Your task to perform on an android device: turn on notifications settings in the gmail app Image 0: 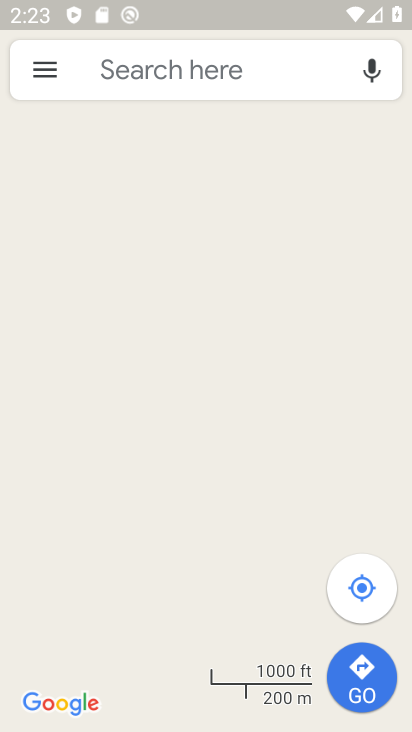
Step 0: press home button
Your task to perform on an android device: turn on notifications settings in the gmail app Image 1: 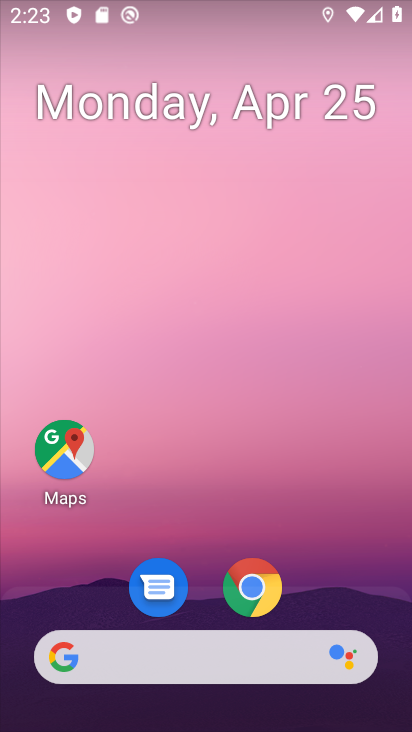
Step 1: drag from (211, 513) to (246, 107)
Your task to perform on an android device: turn on notifications settings in the gmail app Image 2: 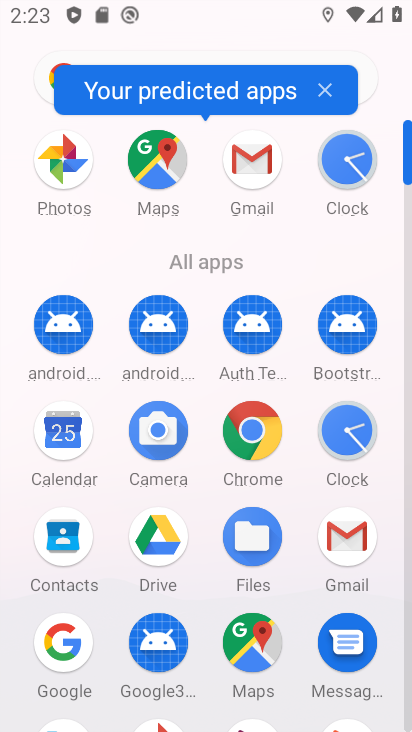
Step 2: click (347, 537)
Your task to perform on an android device: turn on notifications settings in the gmail app Image 3: 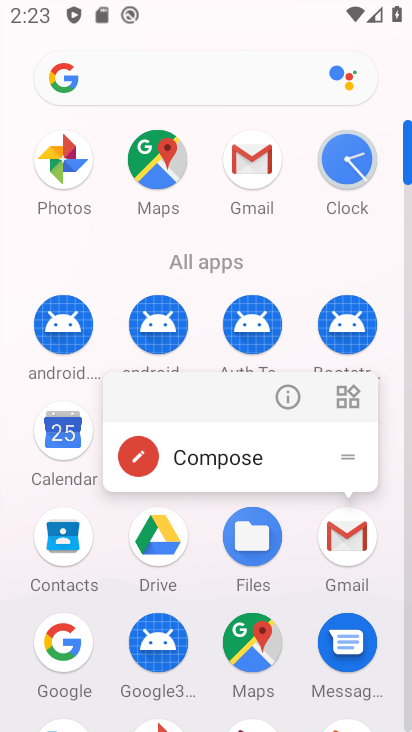
Step 3: click (288, 407)
Your task to perform on an android device: turn on notifications settings in the gmail app Image 4: 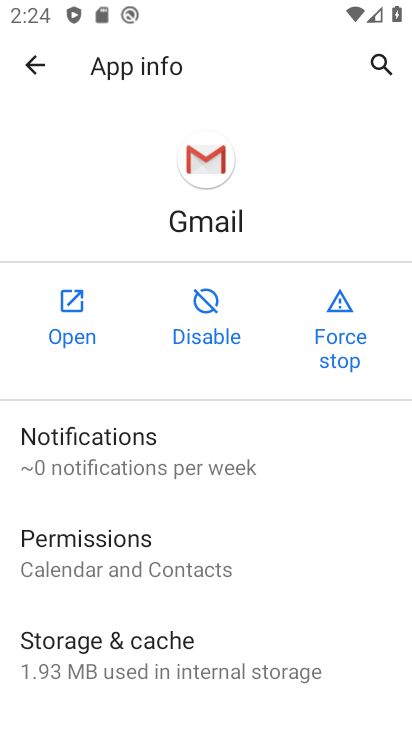
Step 4: click (70, 334)
Your task to perform on an android device: turn on notifications settings in the gmail app Image 5: 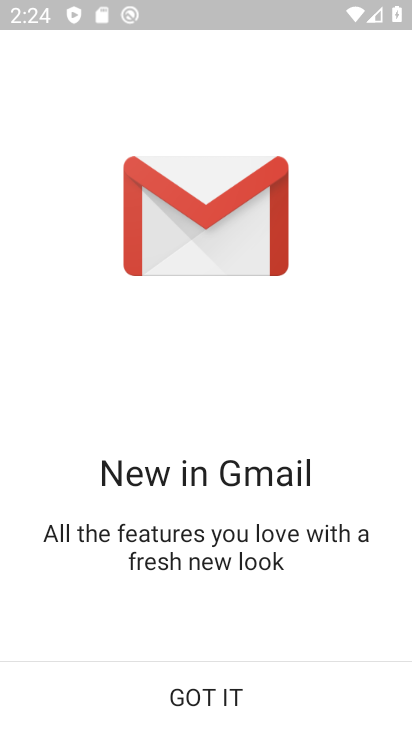
Step 5: click (221, 683)
Your task to perform on an android device: turn on notifications settings in the gmail app Image 6: 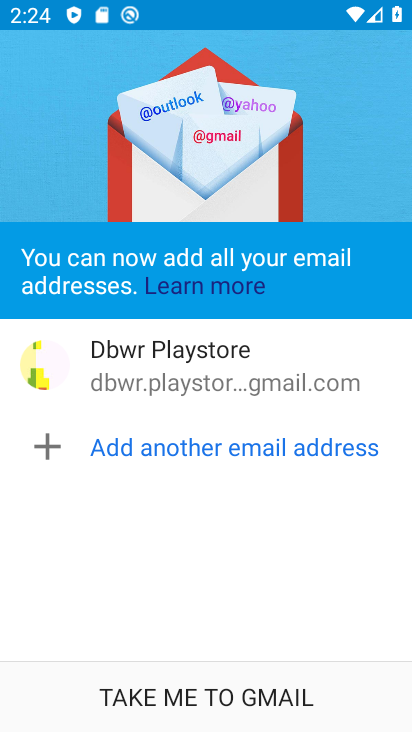
Step 6: click (221, 683)
Your task to perform on an android device: turn on notifications settings in the gmail app Image 7: 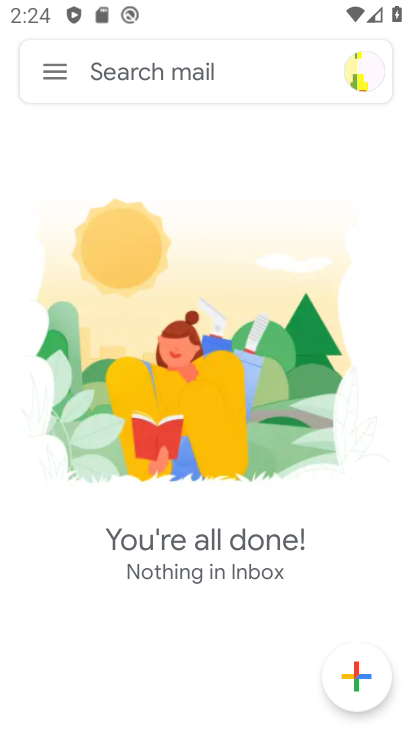
Step 7: click (53, 83)
Your task to perform on an android device: turn on notifications settings in the gmail app Image 8: 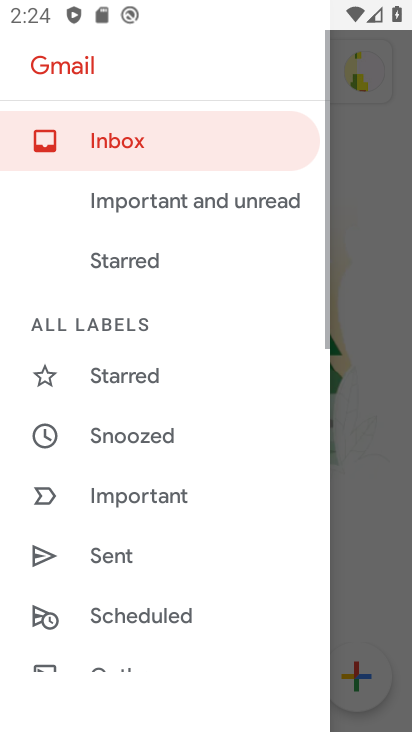
Step 8: drag from (141, 508) to (197, 159)
Your task to perform on an android device: turn on notifications settings in the gmail app Image 9: 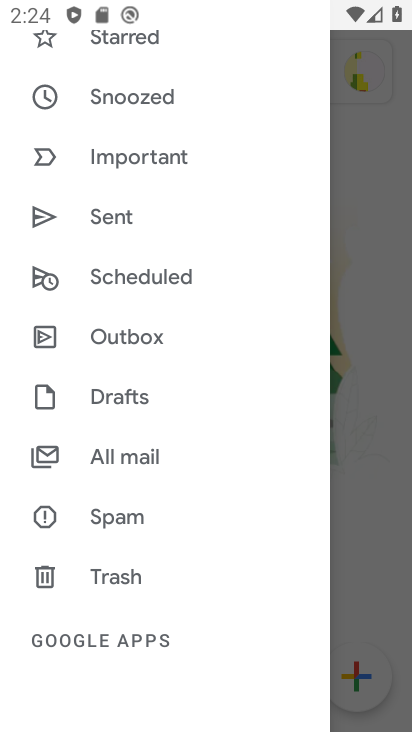
Step 9: drag from (138, 600) to (181, 252)
Your task to perform on an android device: turn on notifications settings in the gmail app Image 10: 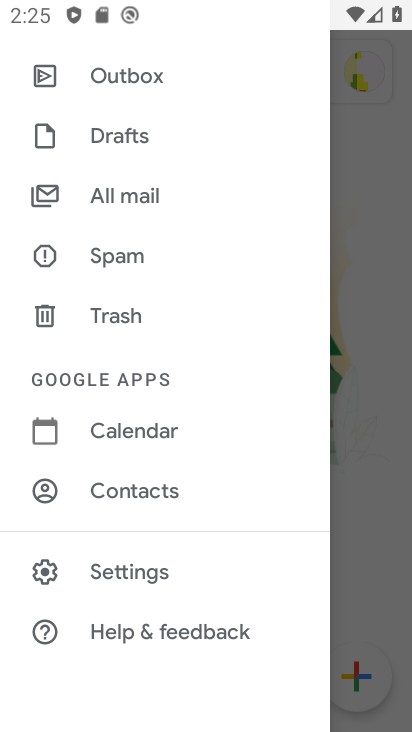
Step 10: click (126, 580)
Your task to perform on an android device: turn on notifications settings in the gmail app Image 11: 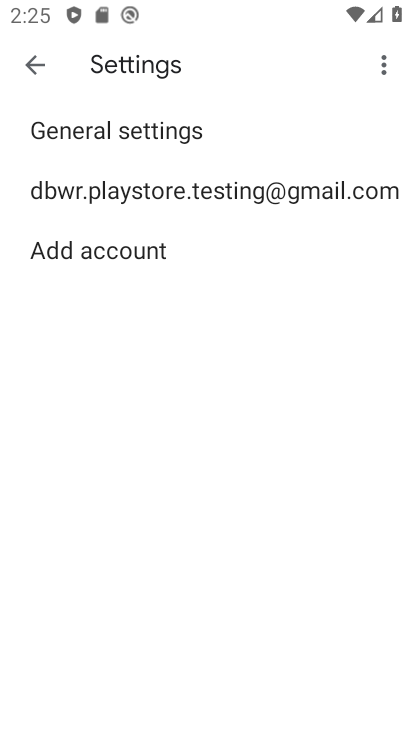
Step 11: click (300, 203)
Your task to perform on an android device: turn on notifications settings in the gmail app Image 12: 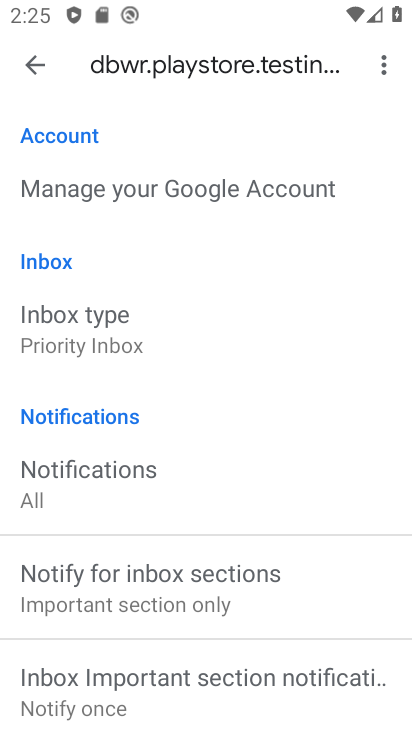
Step 12: drag from (220, 535) to (288, 322)
Your task to perform on an android device: turn on notifications settings in the gmail app Image 13: 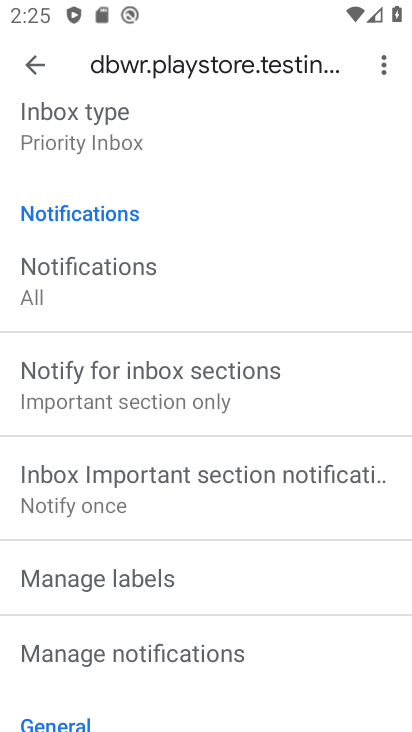
Step 13: click (152, 640)
Your task to perform on an android device: turn on notifications settings in the gmail app Image 14: 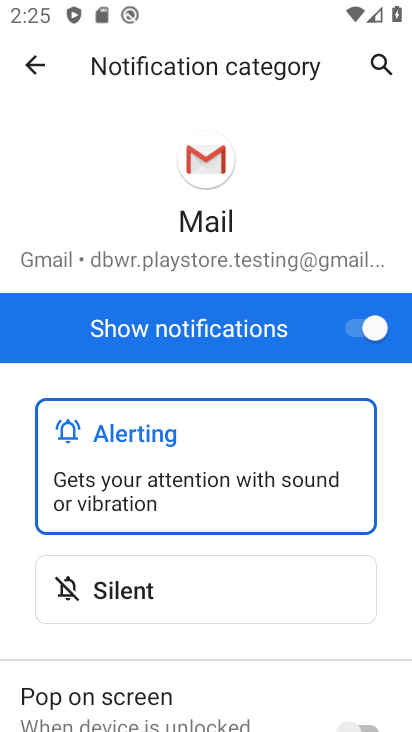
Step 14: click (376, 328)
Your task to perform on an android device: turn on notifications settings in the gmail app Image 15: 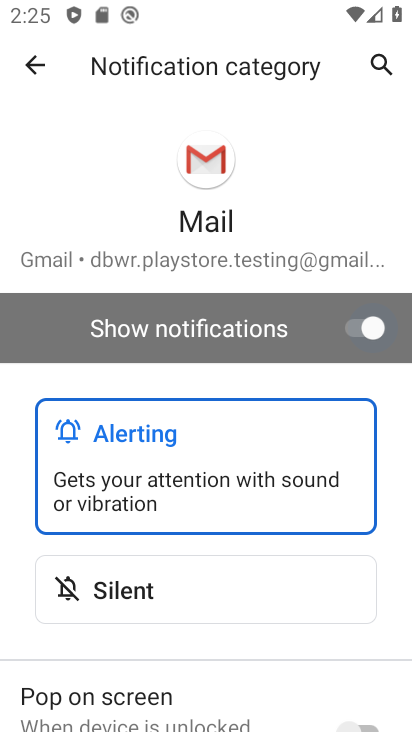
Step 15: click (376, 328)
Your task to perform on an android device: turn on notifications settings in the gmail app Image 16: 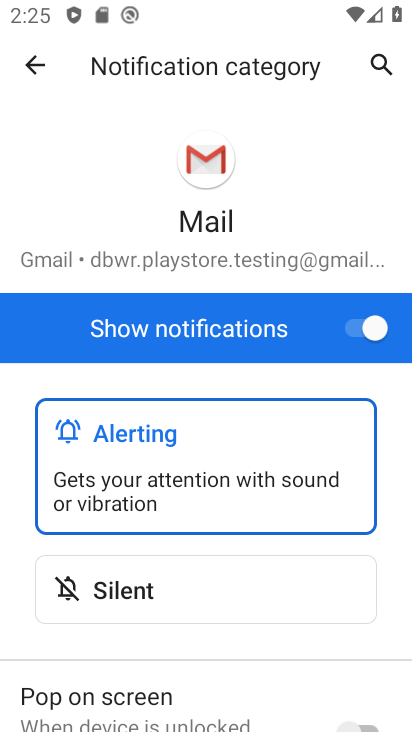
Step 16: task complete